Your task to perform on an android device: Find coffee shops on Maps Image 0: 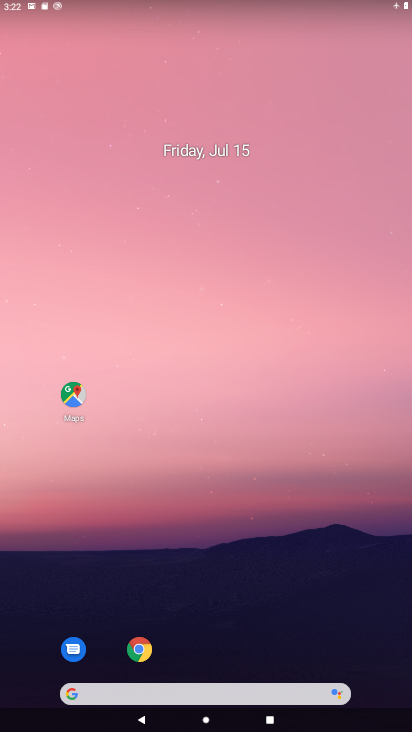
Step 0: click (73, 394)
Your task to perform on an android device: Find coffee shops on Maps Image 1: 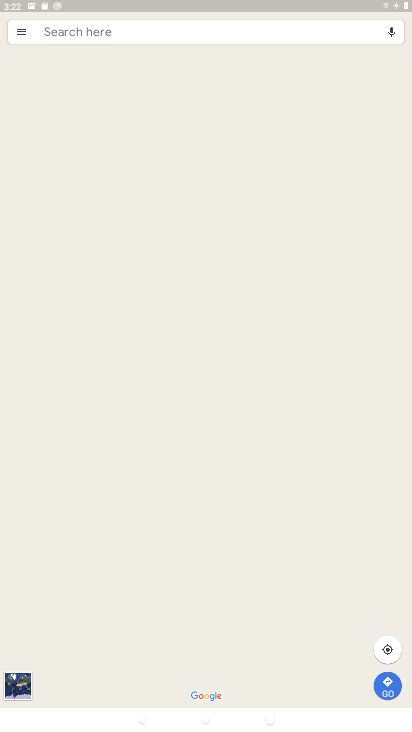
Step 1: click (120, 30)
Your task to perform on an android device: Find coffee shops on Maps Image 2: 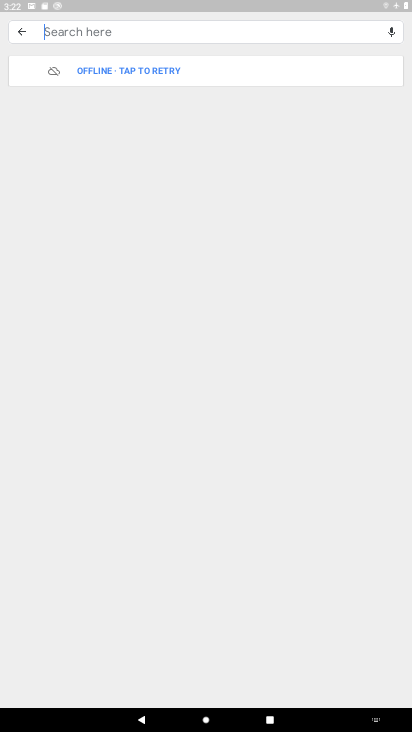
Step 2: type "coffee shop"
Your task to perform on an android device: Find coffee shops on Maps Image 3: 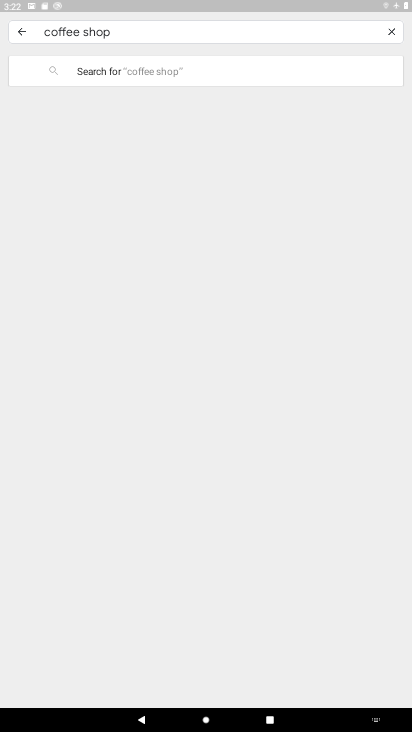
Step 3: click (144, 82)
Your task to perform on an android device: Find coffee shops on Maps Image 4: 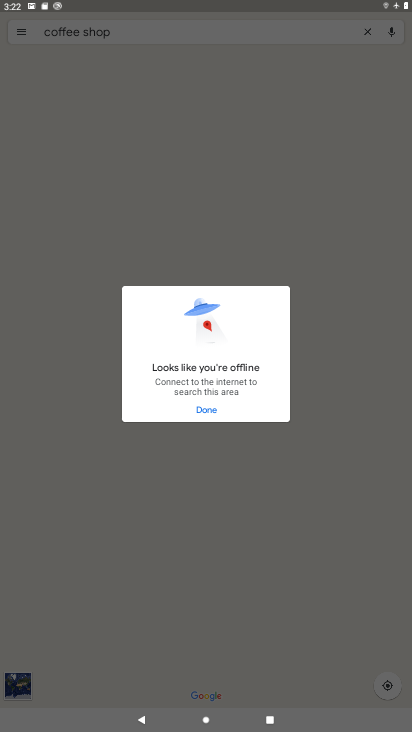
Step 4: click (203, 409)
Your task to perform on an android device: Find coffee shops on Maps Image 5: 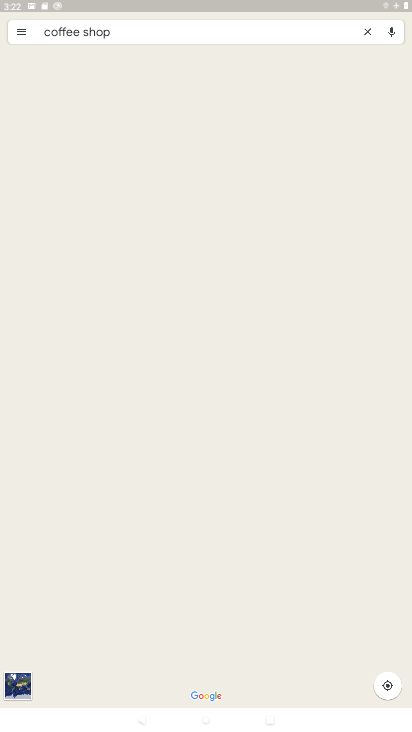
Step 5: drag from (200, 161) to (209, 383)
Your task to perform on an android device: Find coffee shops on Maps Image 6: 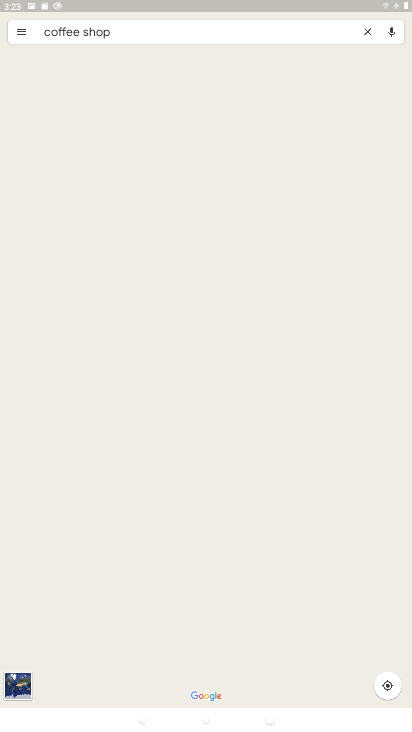
Step 6: drag from (159, 118) to (166, 408)
Your task to perform on an android device: Find coffee shops on Maps Image 7: 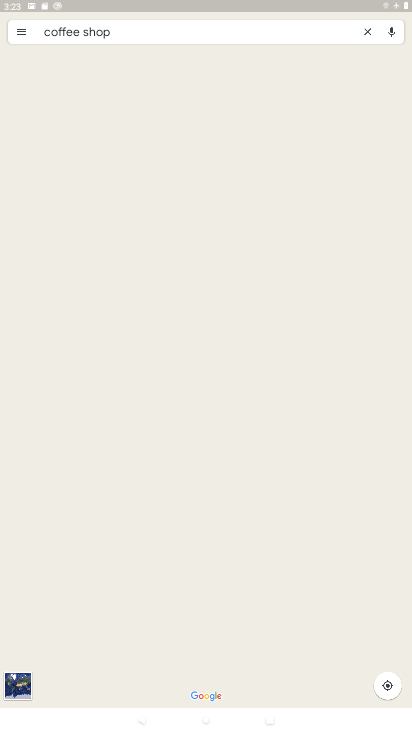
Step 7: click (26, 30)
Your task to perform on an android device: Find coffee shops on Maps Image 8: 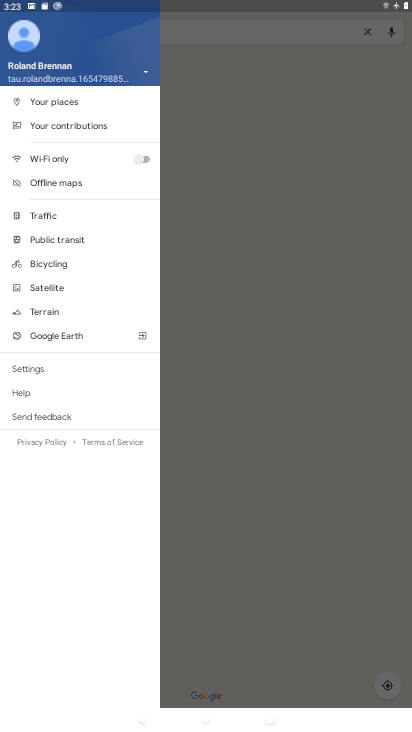
Step 8: click (272, 386)
Your task to perform on an android device: Find coffee shops on Maps Image 9: 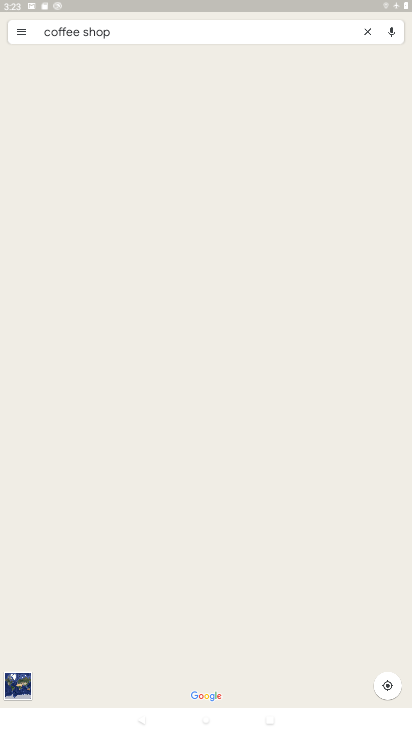
Step 9: task complete